Your task to perform on an android device: Open ESPN.com Image 0: 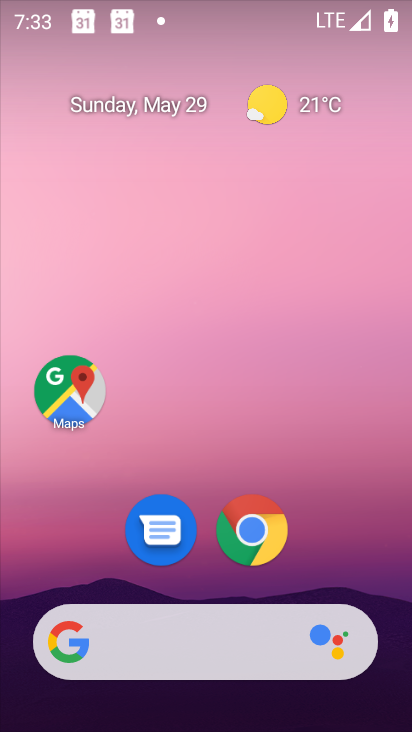
Step 0: drag from (281, 682) to (164, 162)
Your task to perform on an android device: Open ESPN.com Image 1: 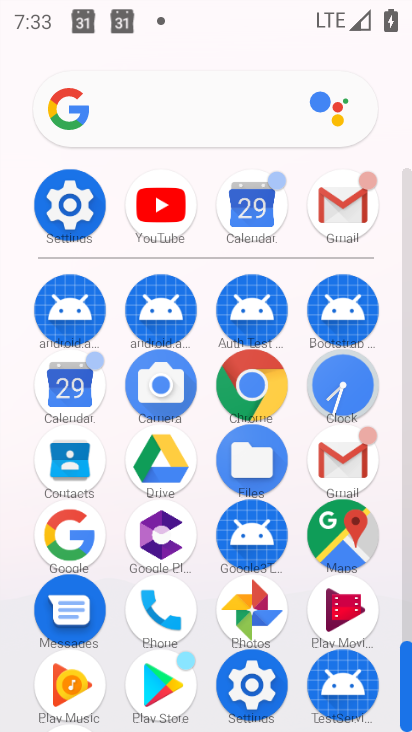
Step 1: click (222, 365)
Your task to perform on an android device: Open ESPN.com Image 2: 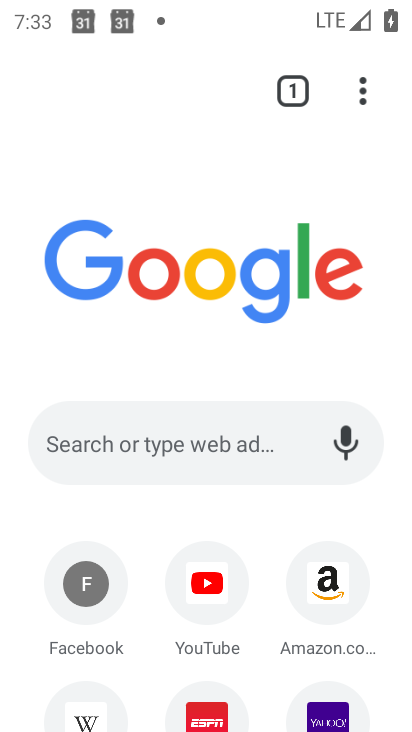
Step 2: click (223, 711)
Your task to perform on an android device: Open ESPN.com Image 3: 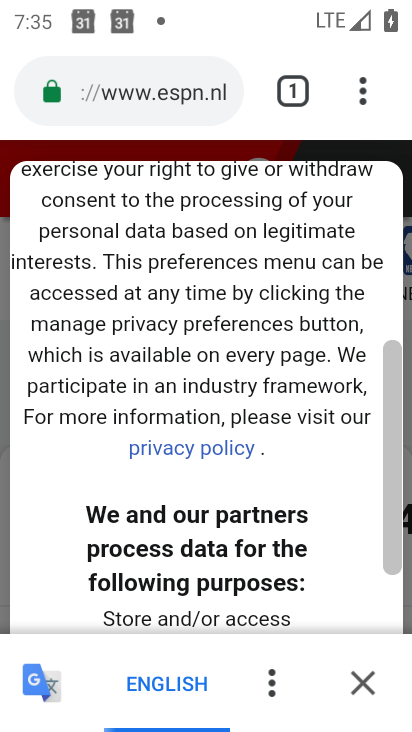
Step 3: click (157, 103)
Your task to perform on an android device: Open ESPN.com Image 4: 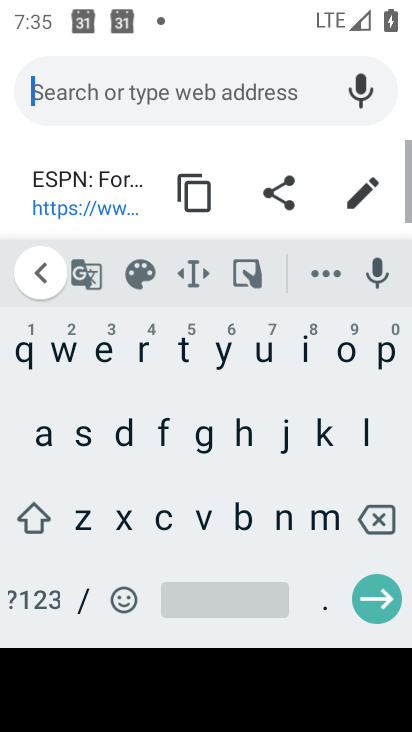
Step 4: click (101, 194)
Your task to perform on an android device: Open ESPN.com Image 5: 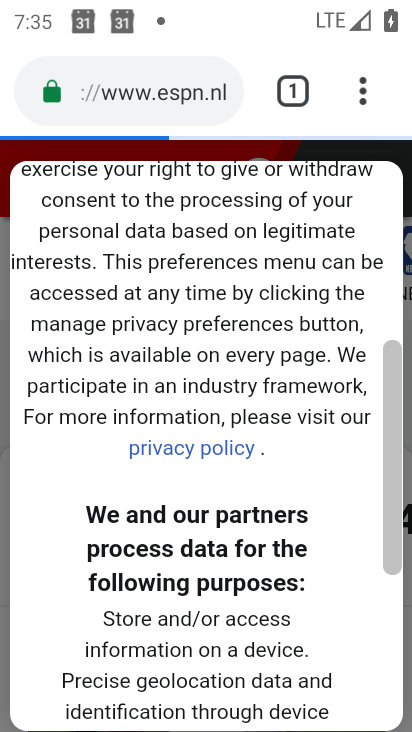
Step 5: task complete